Your task to perform on an android device: Go to Google maps Image 0: 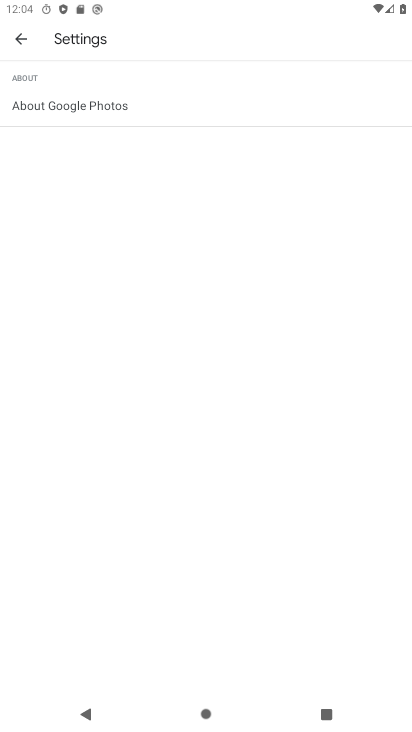
Step 0: press home button
Your task to perform on an android device: Go to Google maps Image 1: 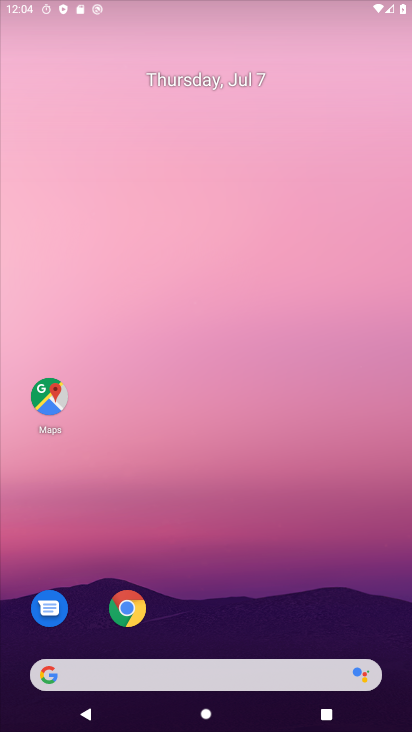
Step 1: drag from (293, 659) to (336, 101)
Your task to perform on an android device: Go to Google maps Image 2: 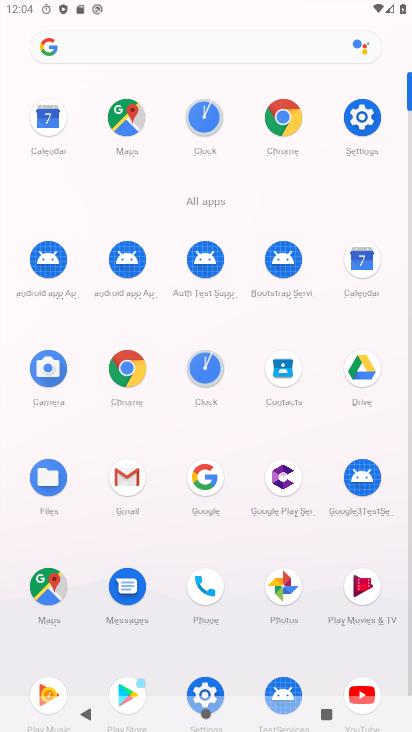
Step 2: click (46, 597)
Your task to perform on an android device: Go to Google maps Image 3: 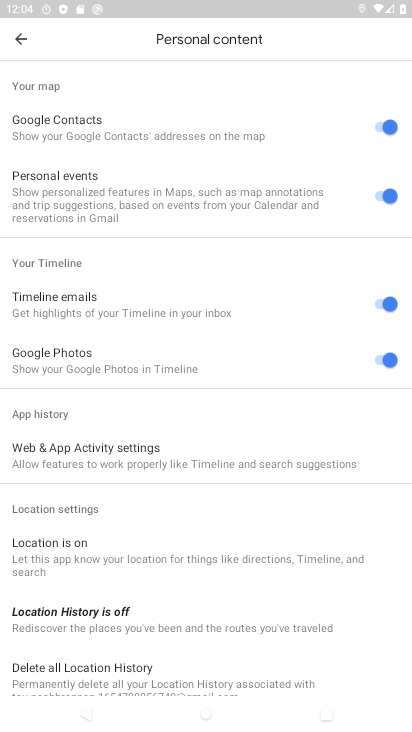
Step 3: task complete